Your task to perform on an android device: Open Reddit.com Image 0: 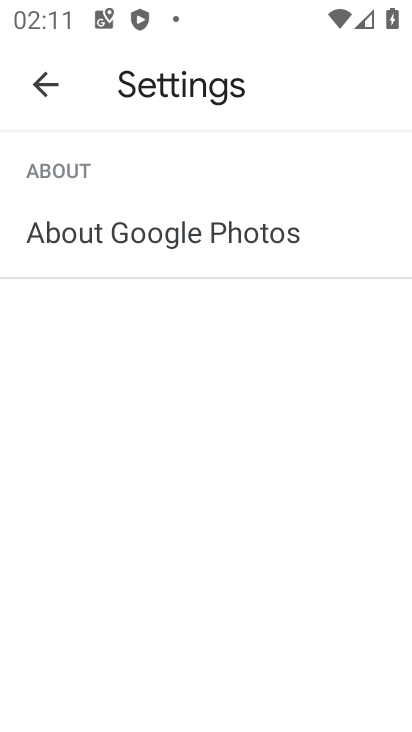
Step 0: press home button
Your task to perform on an android device: Open Reddit.com Image 1: 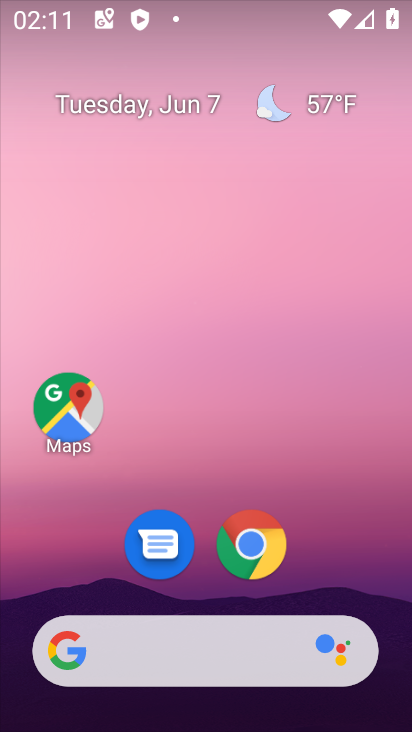
Step 1: click (237, 527)
Your task to perform on an android device: Open Reddit.com Image 2: 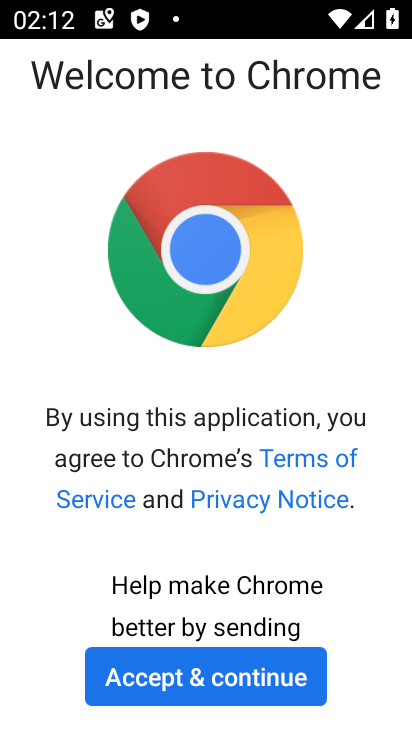
Step 2: click (213, 677)
Your task to perform on an android device: Open Reddit.com Image 3: 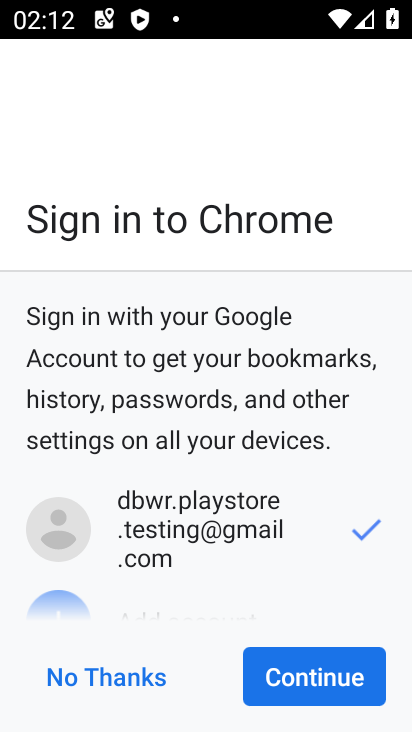
Step 3: click (265, 672)
Your task to perform on an android device: Open Reddit.com Image 4: 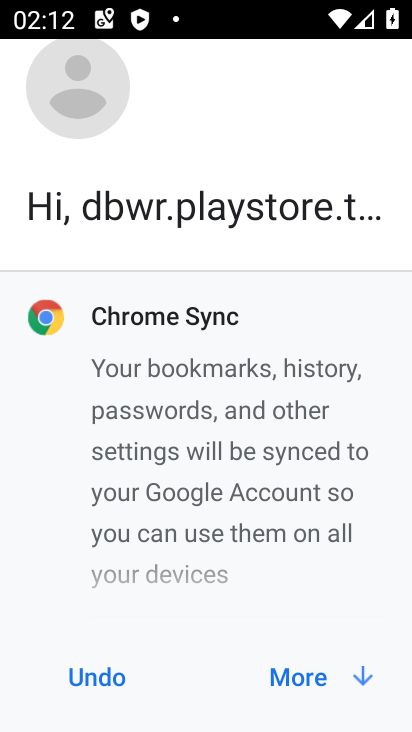
Step 4: click (268, 672)
Your task to perform on an android device: Open Reddit.com Image 5: 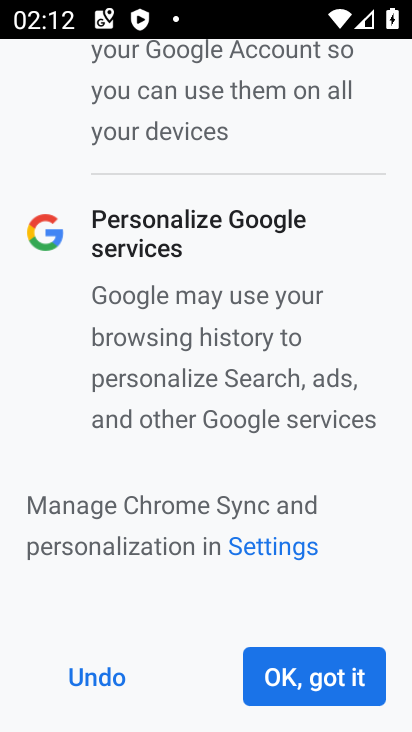
Step 5: click (293, 681)
Your task to perform on an android device: Open Reddit.com Image 6: 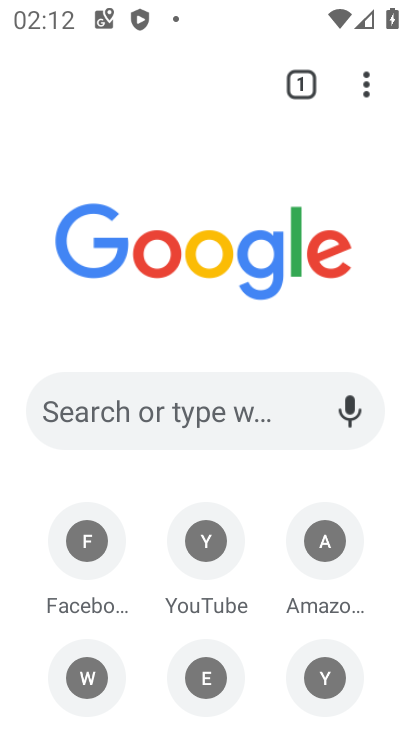
Step 6: click (362, 83)
Your task to perform on an android device: Open Reddit.com Image 7: 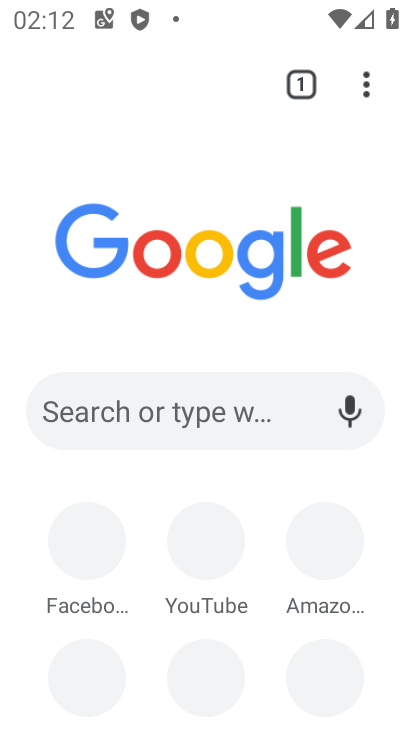
Step 7: click (218, 399)
Your task to perform on an android device: Open Reddit.com Image 8: 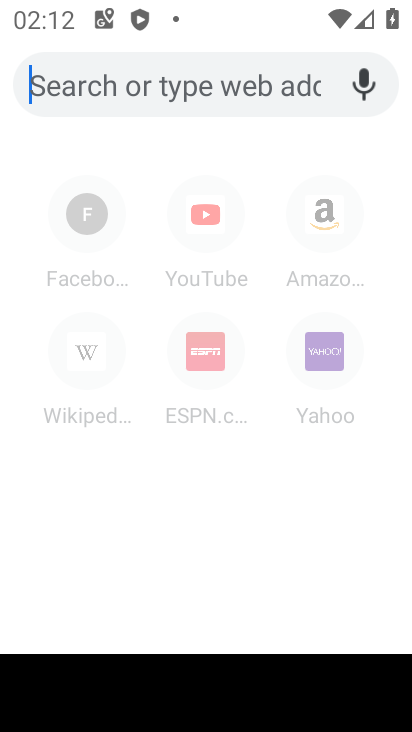
Step 8: click (101, 86)
Your task to perform on an android device: Open Reddit.com Image 9: 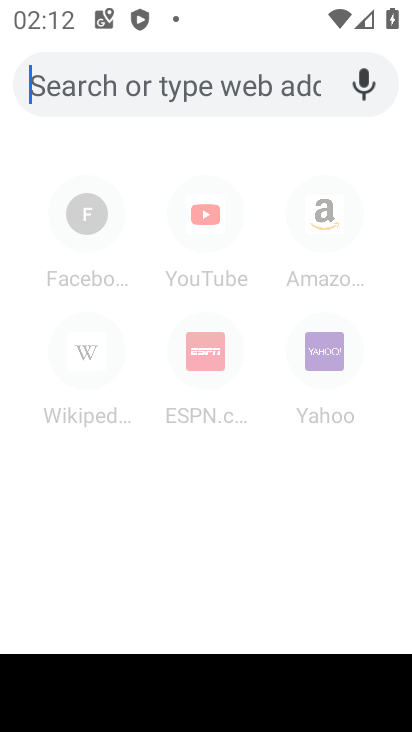
Step 9: type "Reddit.com"
Your task to perform on an android device: Open Reddit.com Image 10: 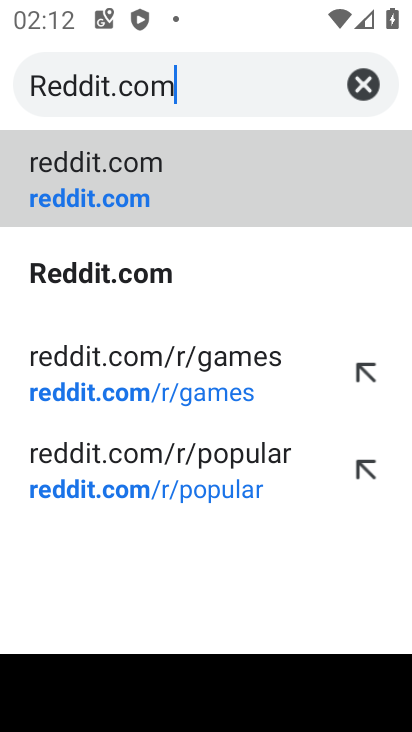
Step 10: click (151, 189)
Your task to perform on an android device: Open Reddit.com Image 11: 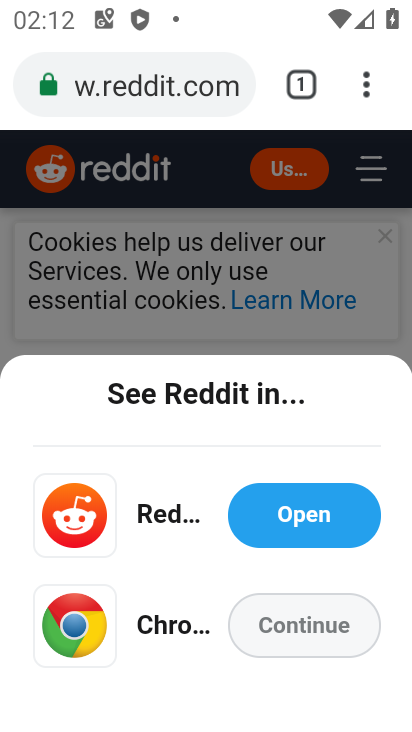
Step 11: task complete